Your task to perform on an android device: What's on my calendar tomorrow? Image 0: 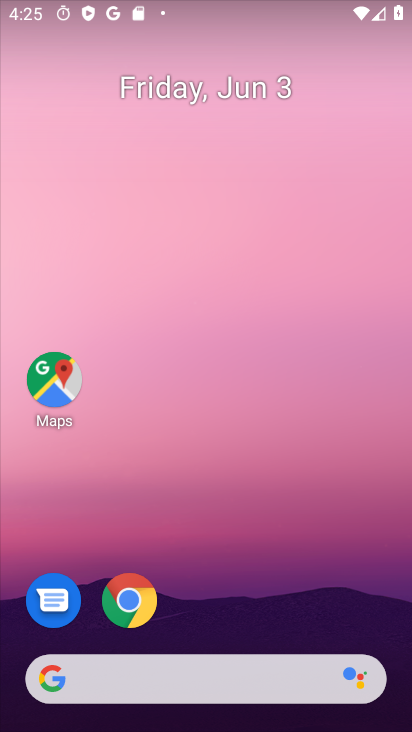
Step 0: drag from (383, 553) to (292, 173)
Your task to perform on an android device: What's on my calendar tomorrow? Image 1: 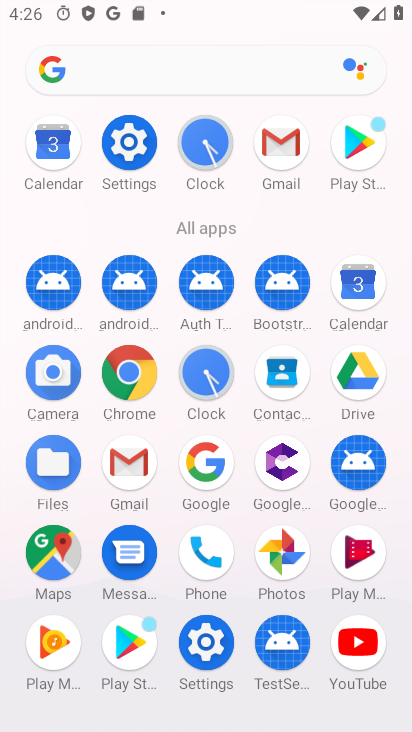
Step 1: click (362, 289)
Your task to perform on an android device: What's on my calendar tomorrow? Image 2: 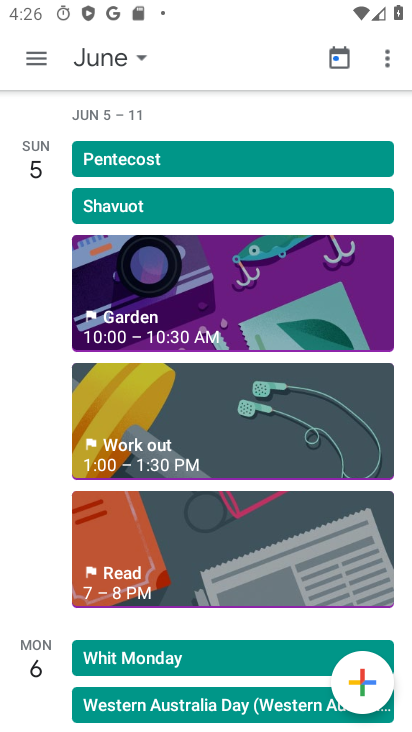
Step 2: click (137, 55)
Your task to perform on an android device: What's on my calendar tomorrow? Image 3: 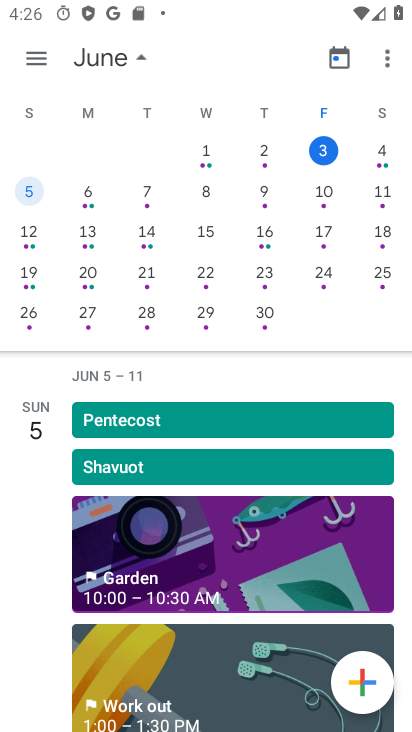
Step 3: click (378, 152)
Your task to perform on an android device: What's on my calendar tomorrow? Image 4: 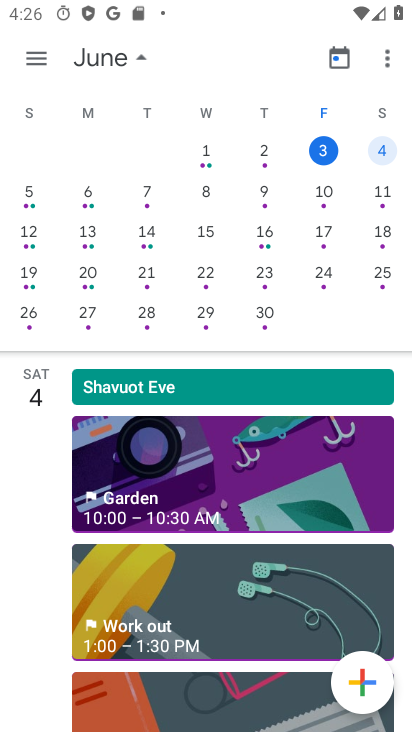
Step 4: task complete